Your task to perform on an android device: turn pop-ups on in chrome Image 0: 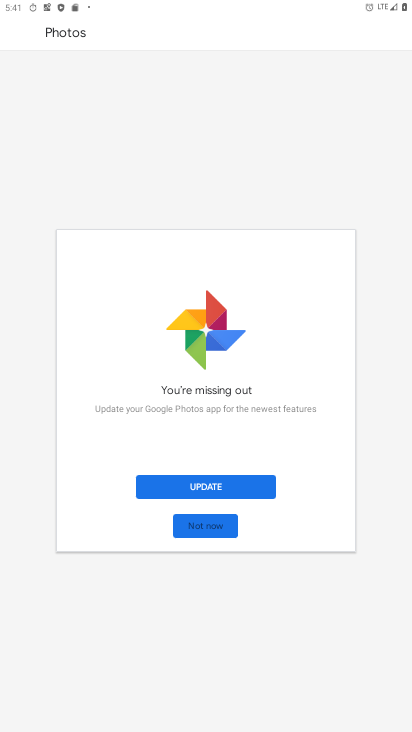
Step 0: press home button
Your task to perform on an android device: turn pop-ups on in chrome Image 1: 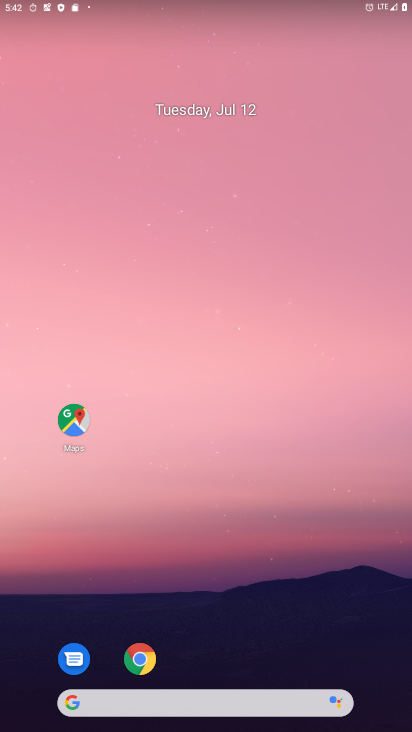
Step 1: drag from (211, 570) to (188, 233)
Your task to perform on an android device: turn pop-ups on in chrome Image 2: 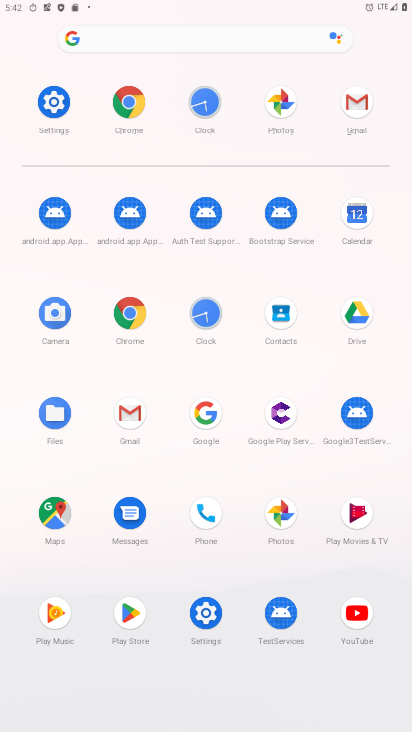
Step 2: click (138, 99)
Your task to perform on an android device: turn pop-ups on in chrome Image 3: 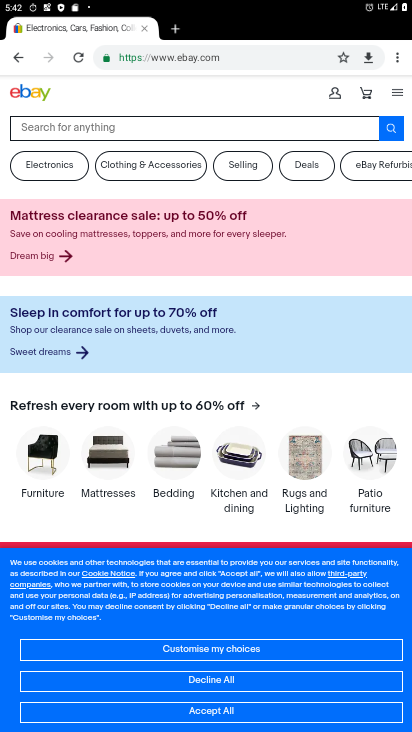
Step 3: click (396, 58)
Your task to perform on an android device: turn pop-ups on in chrome Image 4: 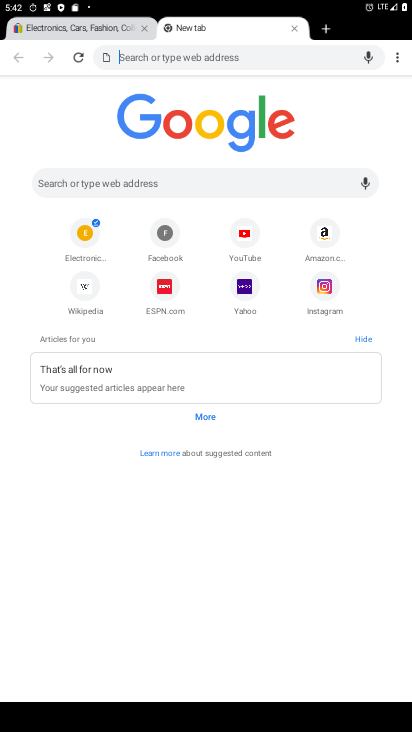
Step 4: click (396, 58)
Your task to perform on an android device: turn pop-ups on in chrome Image 5: 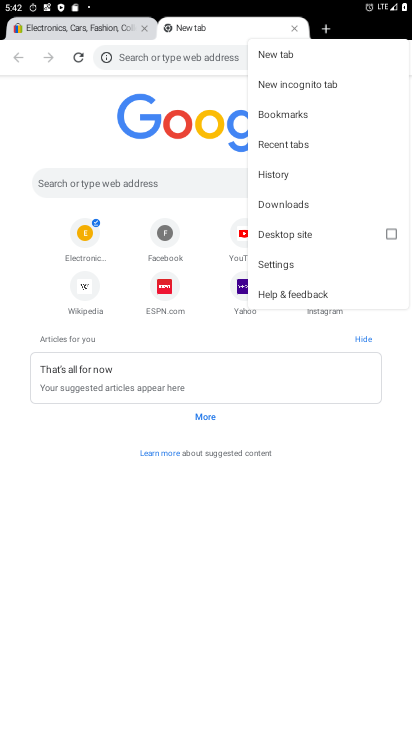
Step 5: click (284, 270)
Your task to perform on an android device: turn pop-ups on in chrome Image 6: 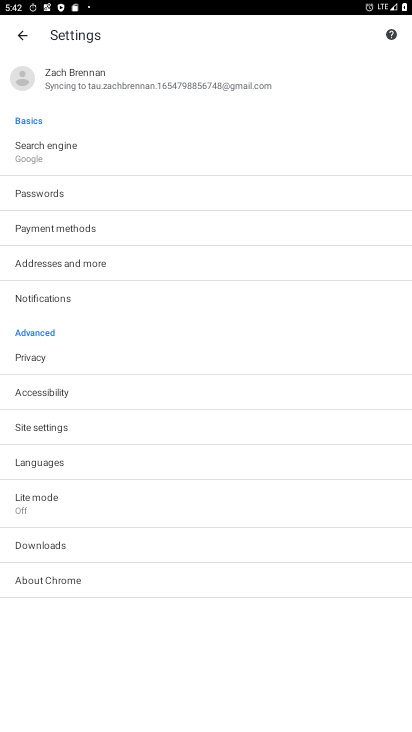
Step 6: click (60, 429)
Your task to perform on an android device: turn pop-ups on in chrome Image 7: 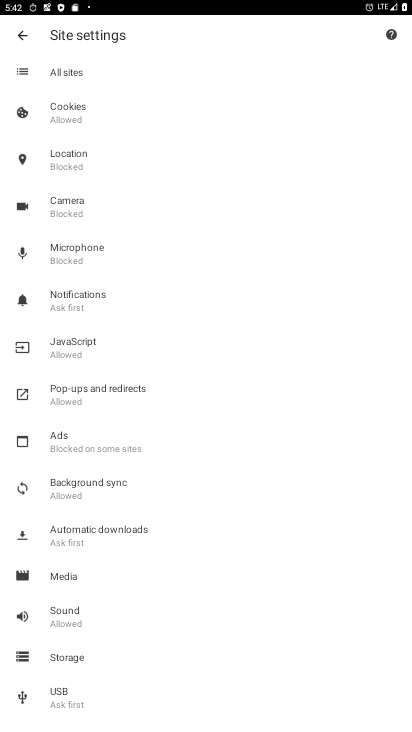
Step 7: click (107, 394)
Your task to perform on an android device: turn pop-ups on in chrome Image 8: 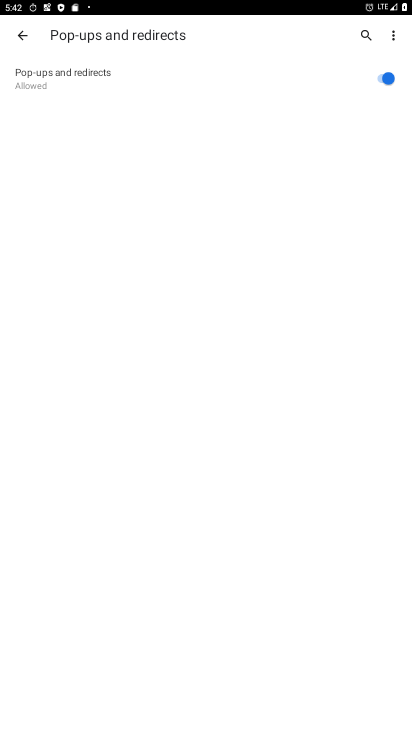
Step 8: task complete